Your task to perform on an android device: find which apps use the phone's location Image 0: 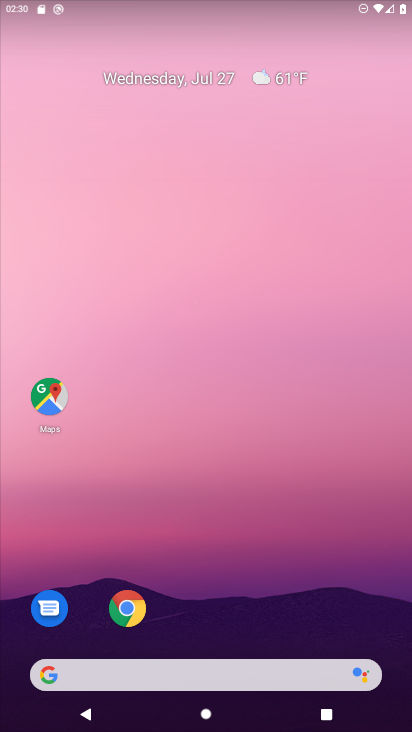
Step 0: drag from (320, 615) to (235, 76)
Your task to perform on an android device: find which apps use the phone's location Image 1: 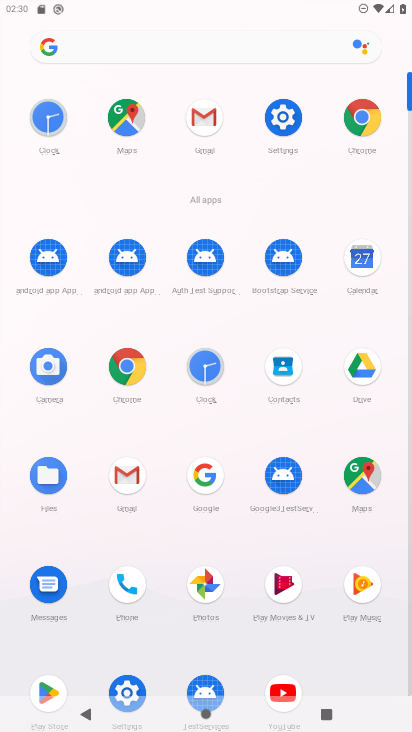
Step 1: click (293, 110)
Your task to perform on an android device: find which apps use the phone's location Image 2: 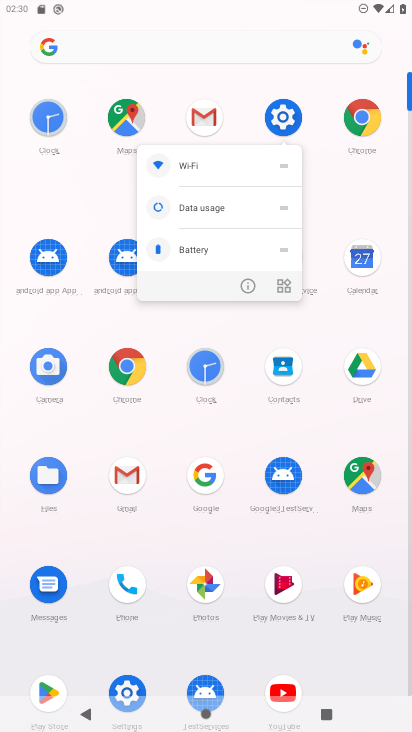
Step 2: click (286, 110)
Your task to perform on an android device: find which apps use the phone's location Image 3: 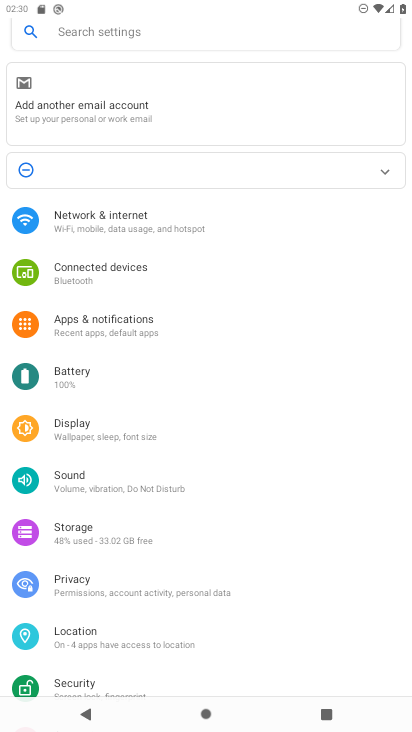
Step 3: click (122, 640)
Your task to perform on an android device: find which apps use the phone's location Image 4: 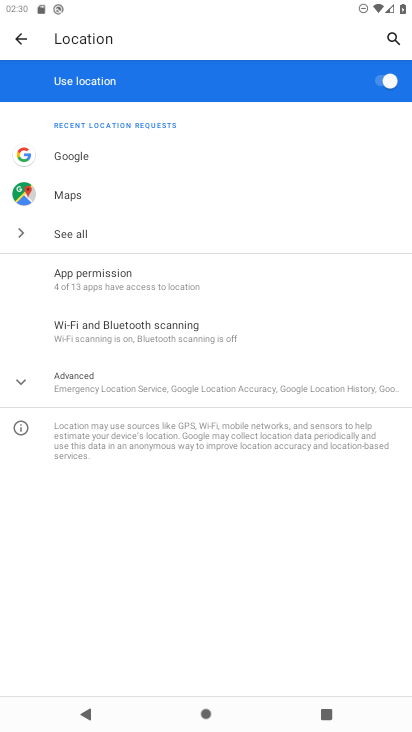
Step 4: click (159, 273)
Your task to perform on an android device: find which apps use the phone's location Image 5: 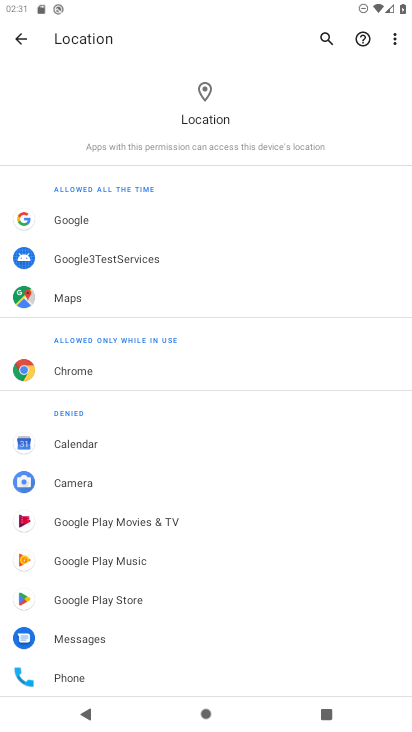
Step 5: task complete